Your task to perform on an android device: toggle sleep mode Image 0: 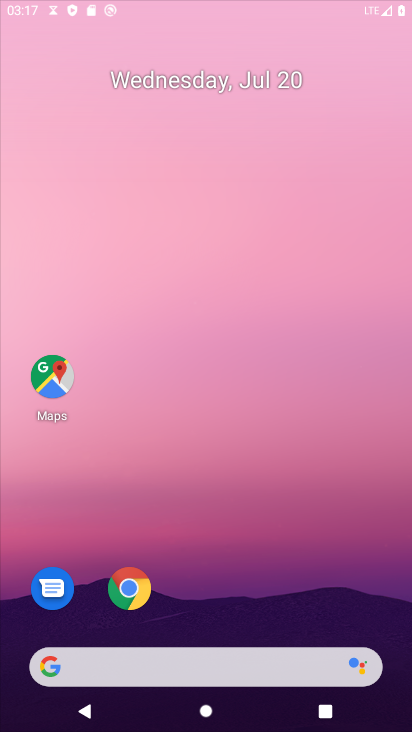
Step 0: click (303, 86)
Your task to perform on an android device: toggle sleep mode Image 1: 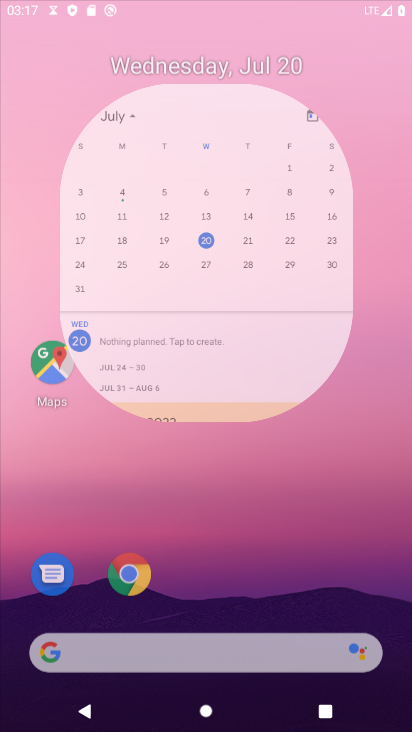
Step 1: drag from (207, 591) to (217, 170)
Your task to perform on an android device: toggle sleep mode Image 2: 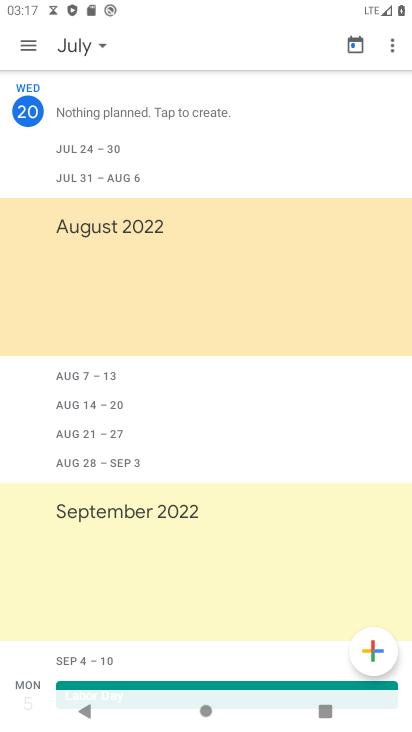
Step 2: drag from (391, 46) to (253, 567)
Your task to perform on an android device: toggle sleep mode Image 3: 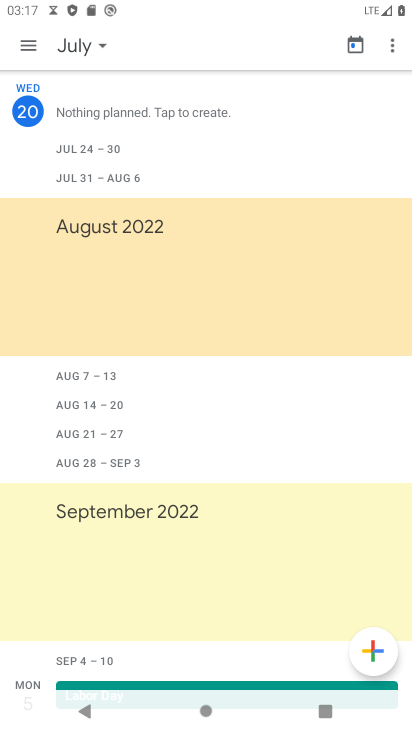
Step 3: press home button
Your task to perform on an android device: toggle sleep mode Image 4: 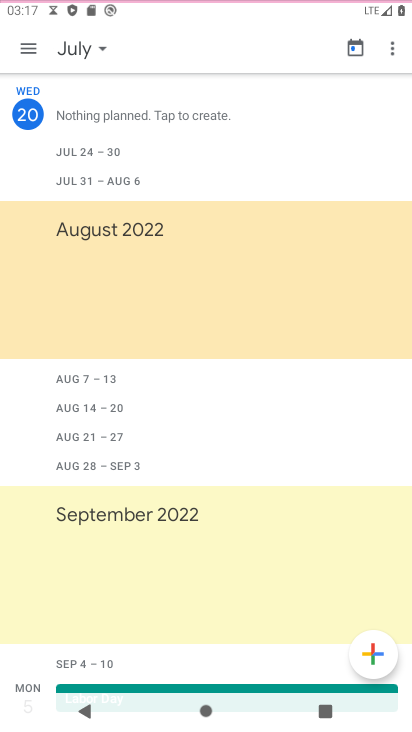
Step 4: drag from (271, 440) to (369, 12)
Your task to perform on an android device: toggle sleep mode Image 5: 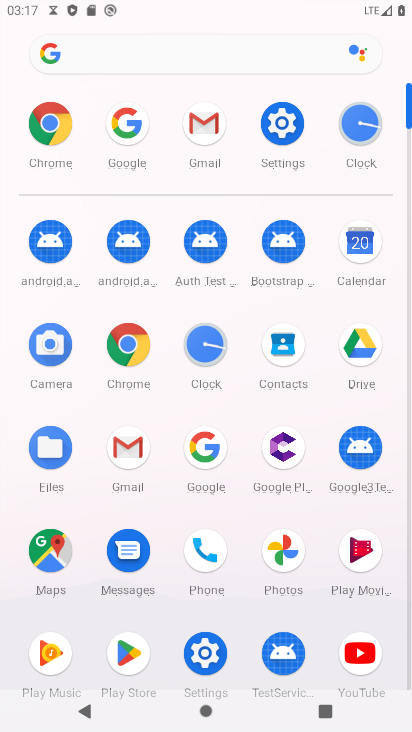
Step 5: click (200, 347)
Your task to perform on an android device: toggle sleep mode Image 6: 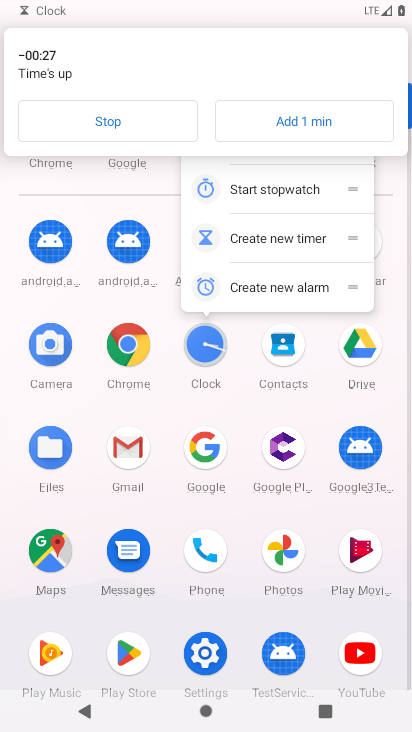
Step 6: click (131, 133)
Your task to perform on an android device: toggle sleep mode Image 7: 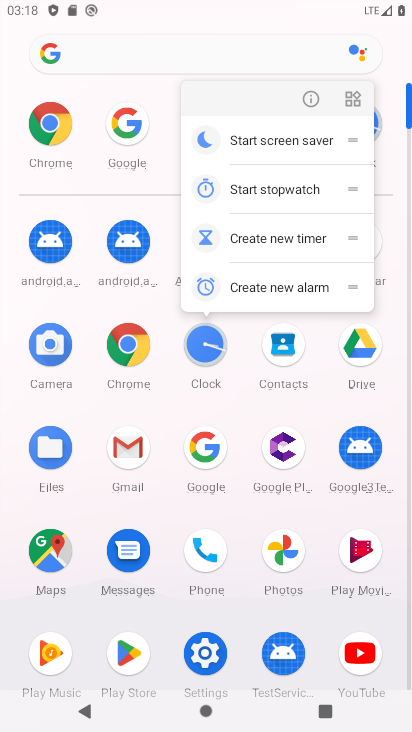
Step 7: click (201, 635)
Your task to perform on an android device: toggle sleep mode Image 8: 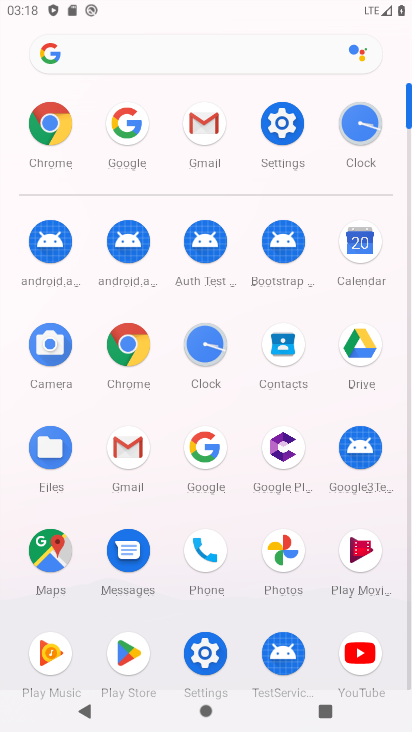
Step 8: click (286, 126)
Your task to perform on an android device: toggle sleep mode Image 9: 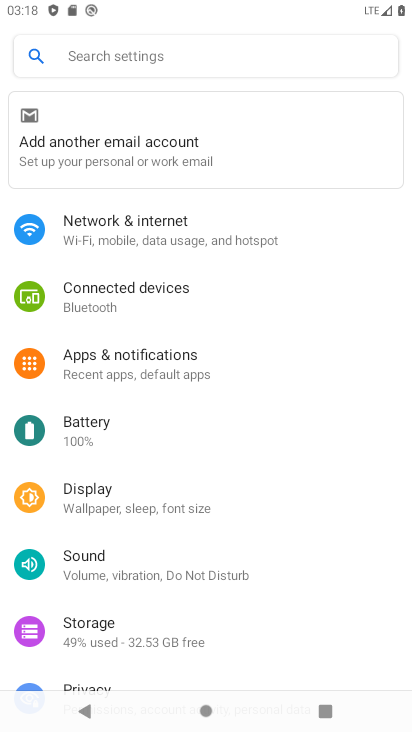
Step 9: click (123, 505)
Your task to perform on an android device: toggle sleep mode Image 10: 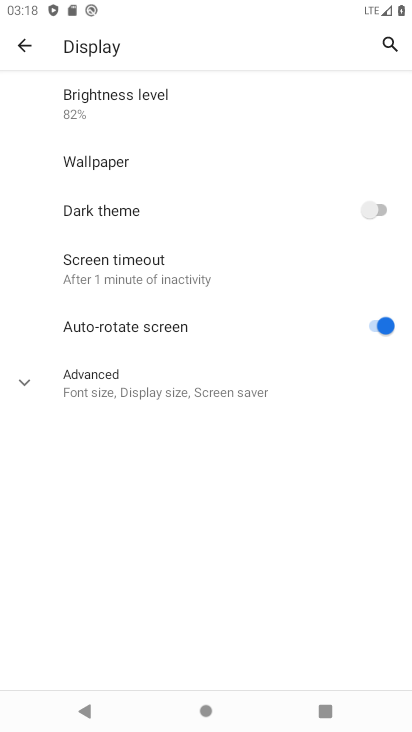
Step 10: click (146, 396)
Your task to perform on an android device: toggle sleep mode Image 11: 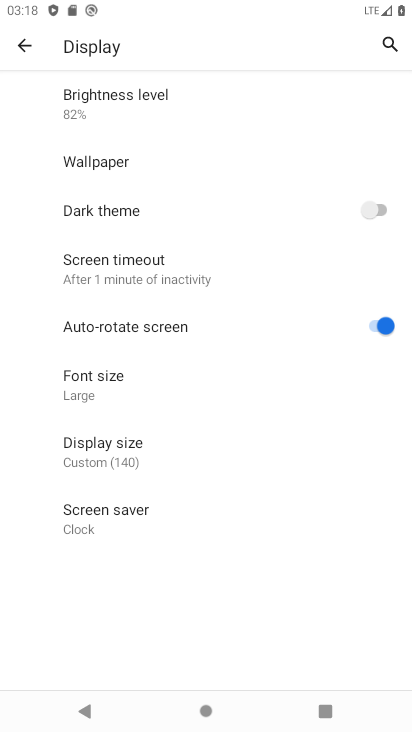
Step 11: click (206, 264)
Your task to perform on an android device: toggle sleep mode Image 12: 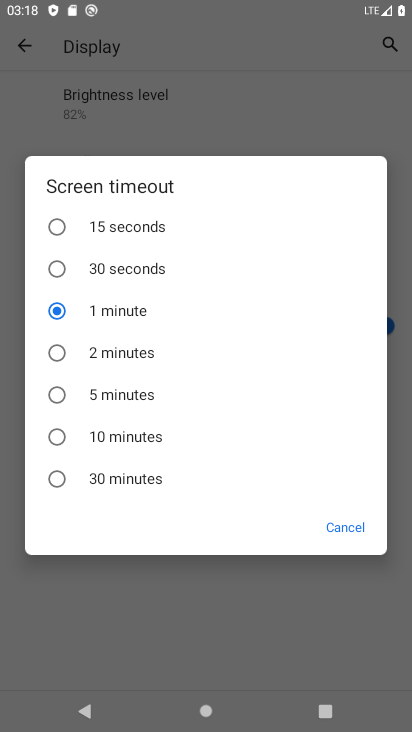
Step 12: click (84, 453)
Your task to perform on an android device: toggle sleep mode Image 13: 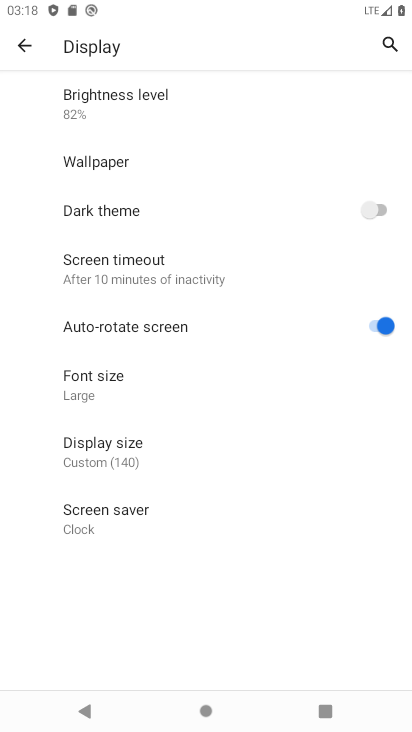
Step 13: task complete